Your task to perform on an android device: Do I have any events this weekend? Image 0: 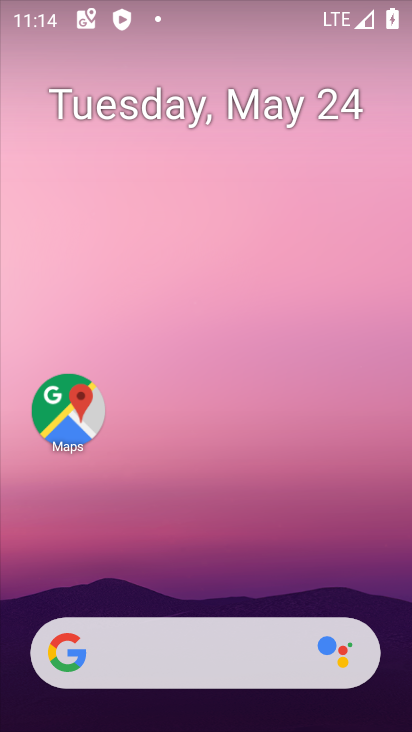
Step 0: drag from (231, 651) to (236, 291)
Your task to perform on an android device: Do I have any events this weekend? Image 1: 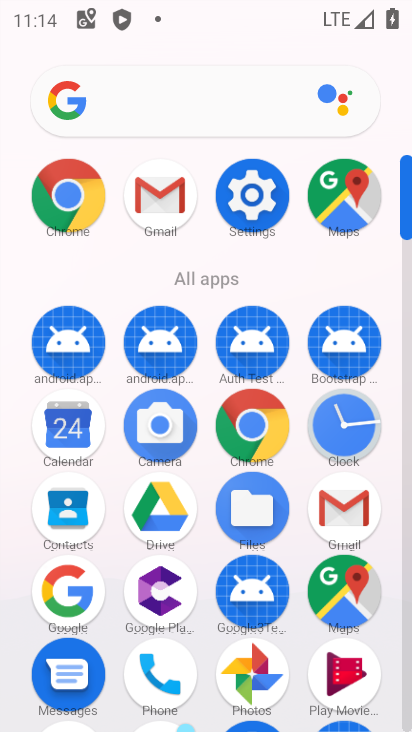
Step 1: click (68, 429)
Your task to perform on an android device: Do I have any events this weekend? Image 2: 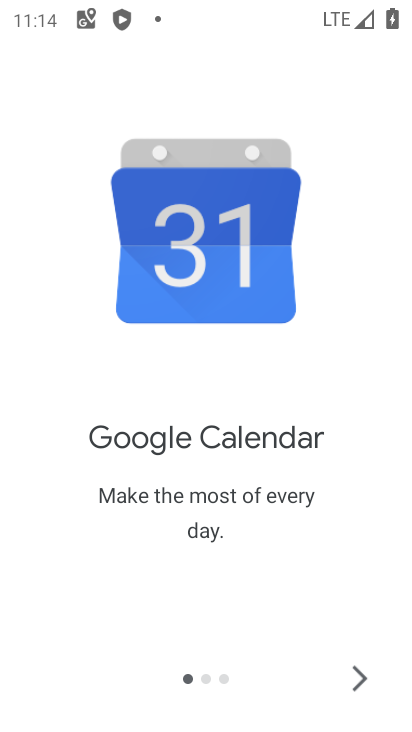
Step 2: click (362, 680)
Your task to perform on an android device: Do I have any events this weekend? Image 3: 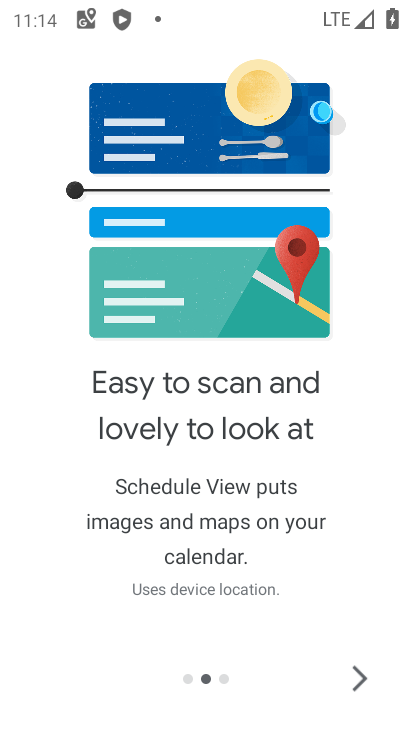
Step 3: click (362, 680)
Your task to perform on an android device: Do I have any events this weekend? Image 4: 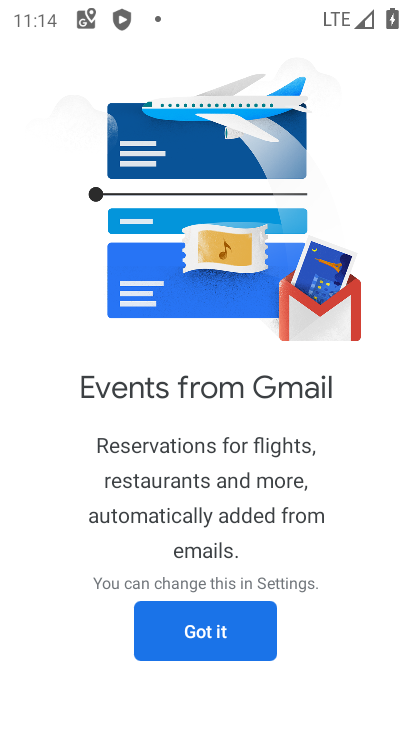
Step 4: click (220, 617)
Your task to perform on an android device: Do I have any events this weekend? Image 5: 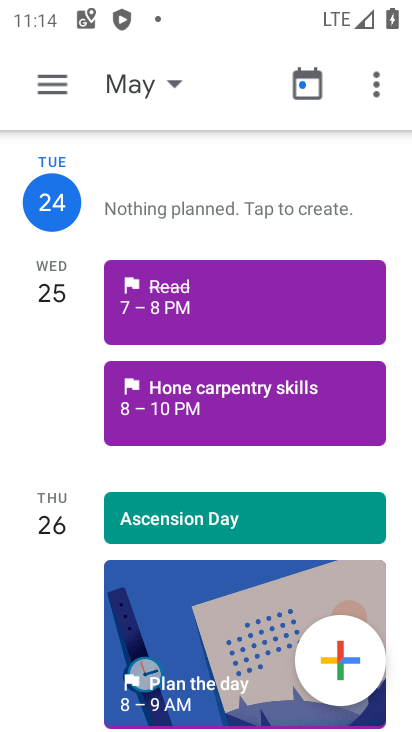
Step 5: click (38, 88)
Your task to perform on an android device: Do I have any events this weekend? Image 6: 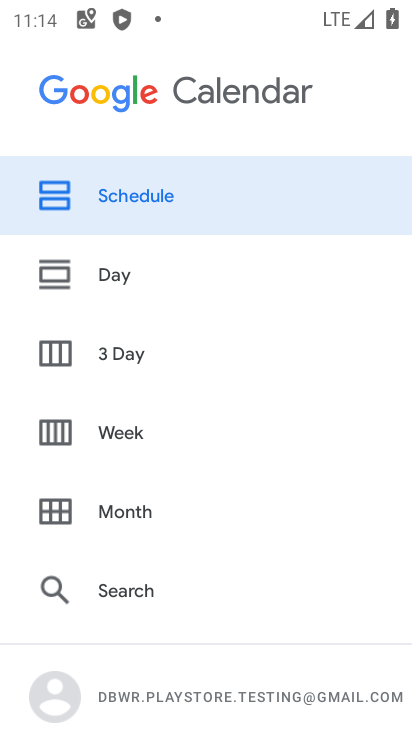
Step 6: click (141, 440)
Your task to perform on an android device: Do I have any events this weekend? Image 7: 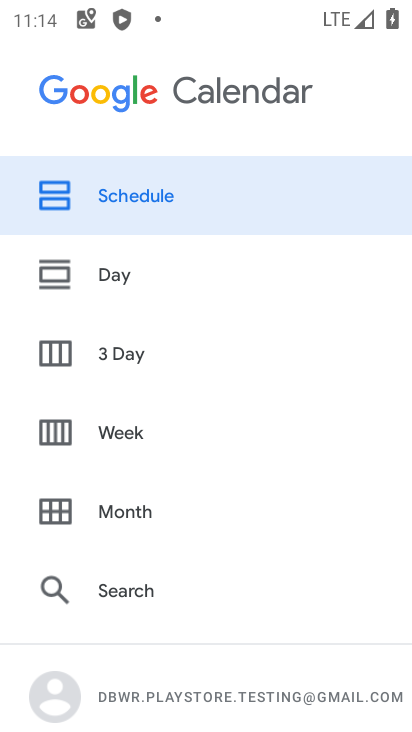
Step 7: click (118, 428)
Your task to perform on an android device: Do I have any events this weekend? Image 8: 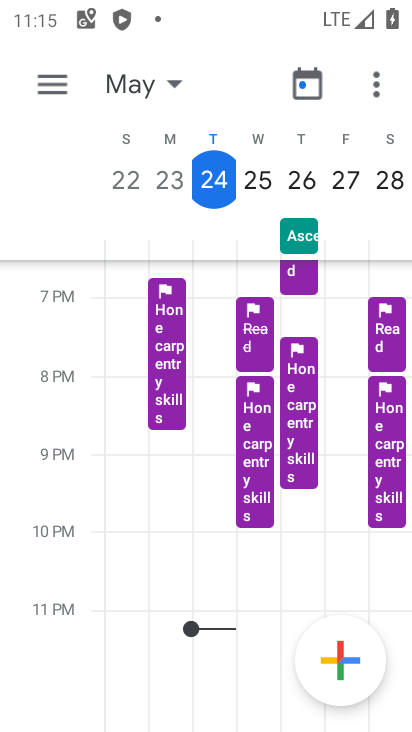
Step 8: task complete